Your task to perform on an android device: Open calendar and show me the third week of next month Image 0: 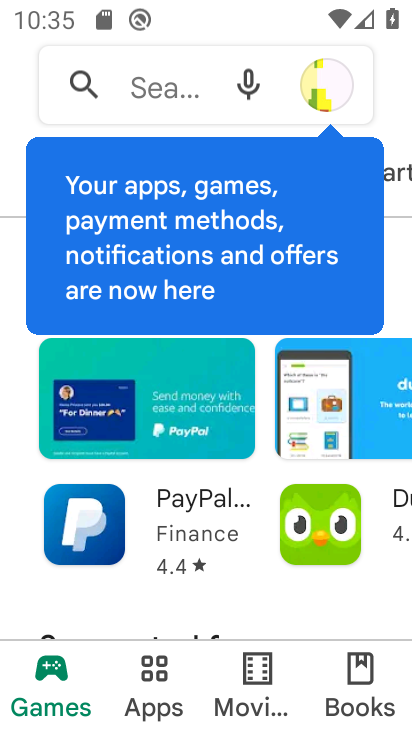
Step 0: press home button
Your task to perform on an android device: Open calendar and show me the third week of next month Image 1: 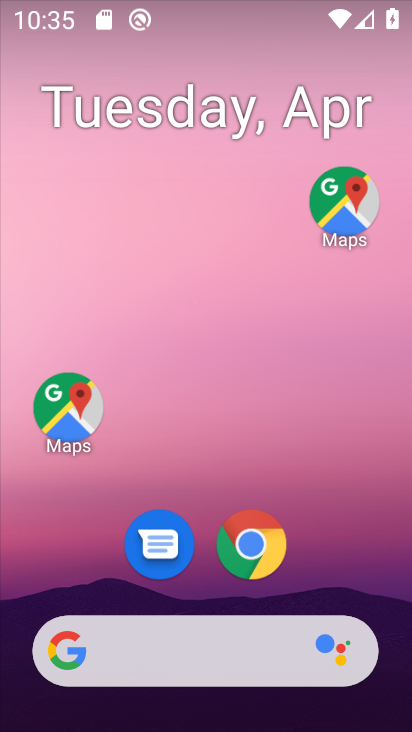
Step 1: drag from (304, 434) to (274, 104)
Your task to perform on an android device: Open calendar and show me the third week of next month Image 2: 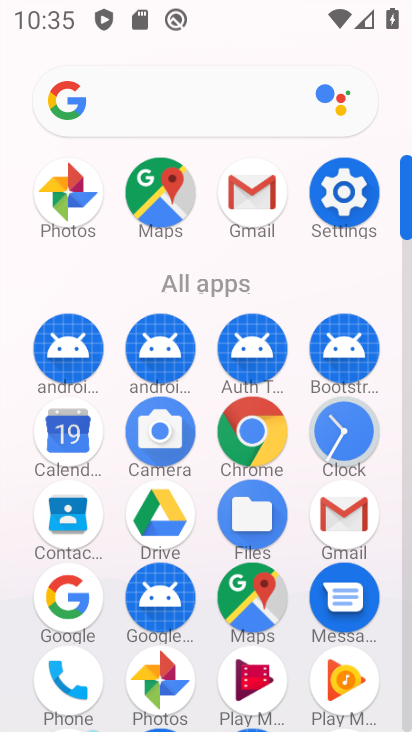
Step 2: drag from (307, 563) to (302, 280)
Your task to perform on an android device: Open calendar and show me the third week of next month Image 3: 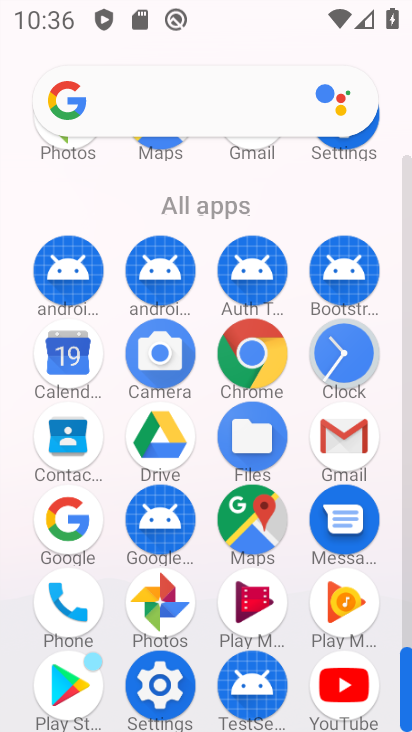
Step 3: click (84, 365)
Your task to perform on an android device: Open calendar and show me the third week of next month Image 4: 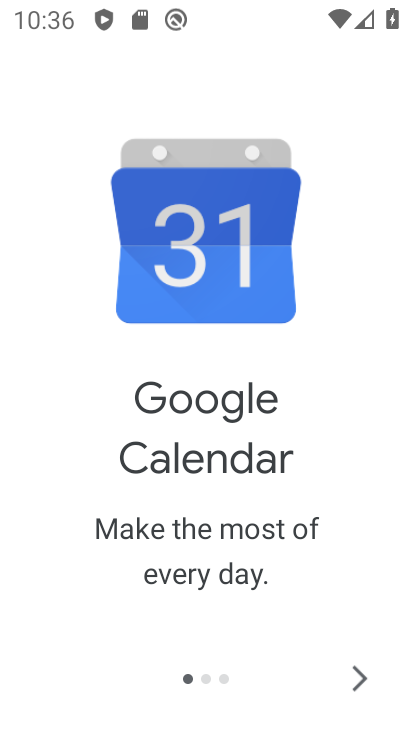
Step 4: click (358, 676)
Your task to perform on an android device: Open calendar and show me the third week of next month Image 5: 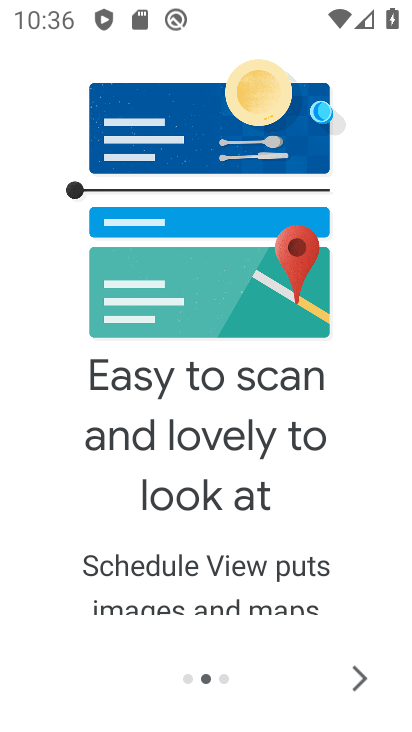
Step 5: click (352, 686)
Your task to perform on an android device: Open calendar and show me the third week of next month Image 6: 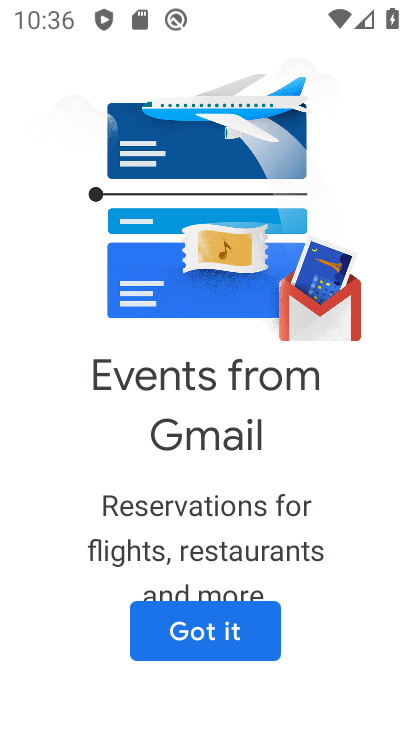
Step 6: click (260, 628)
Your task to perform on an android device: Open calendar and show me the third week of next month Image 7: 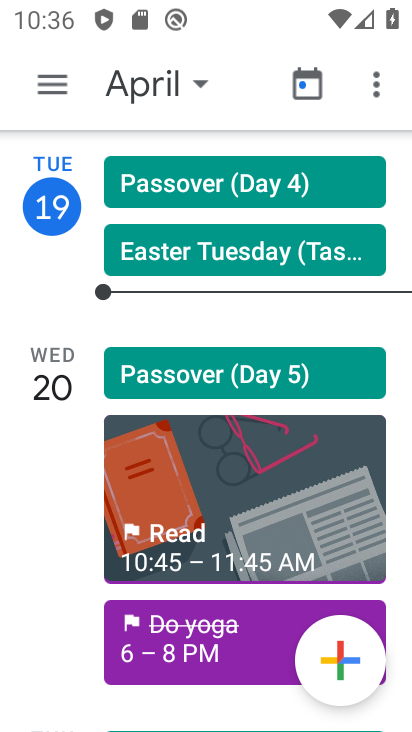
Step 7: click (176, 86)
Your task to perform on an android device: Open calendar and show me the third week of next month Image 8: 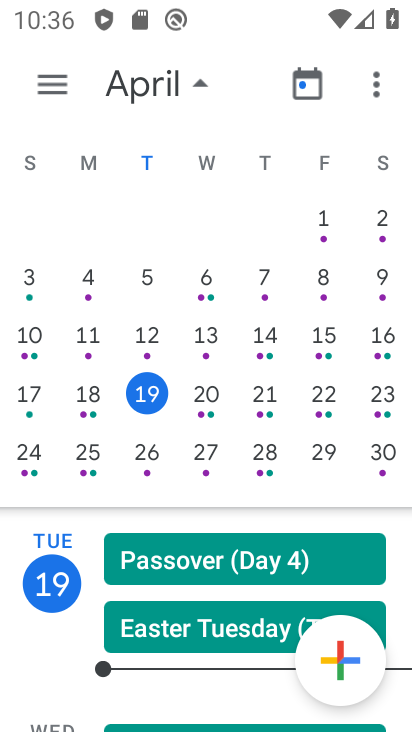
Step 8: drag from (357, 435) to (4, 401)
Your task to perform on an android device: Open calendar and show me the third week of next month Image 9: 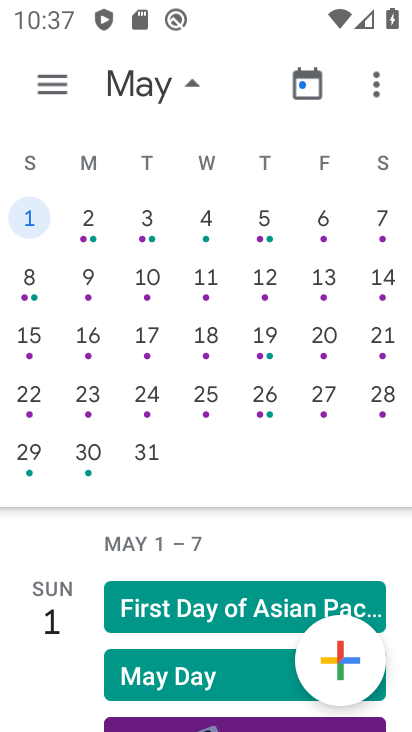
Step 9: click (31, 340)
Your task to perform on an android device: Open calendar and show me the third week of next month Image 10: 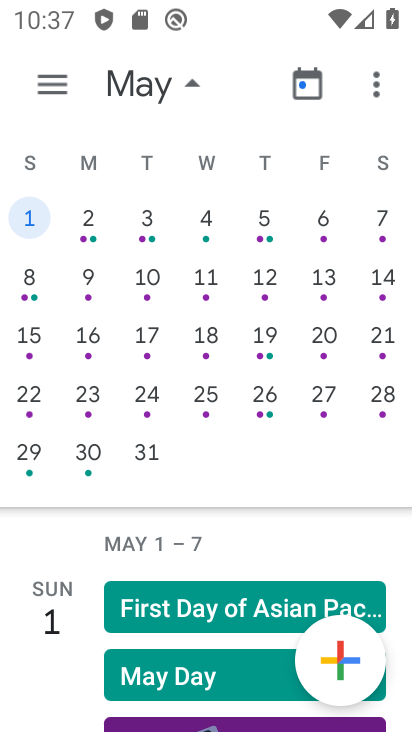
Step 10: click (38, 337)
Your task to perform on an android device: Open calendar and show me the third week of next month Image 11: 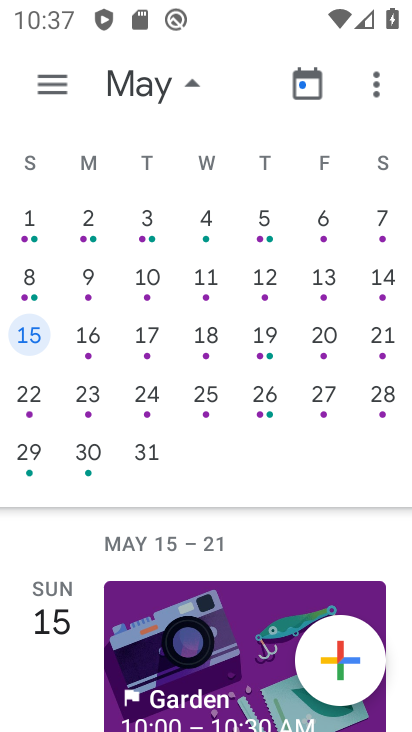
Step 11: click (99, 347)
Your task to perform on an android device: Open calendar and show me the third week of next month Image 12: 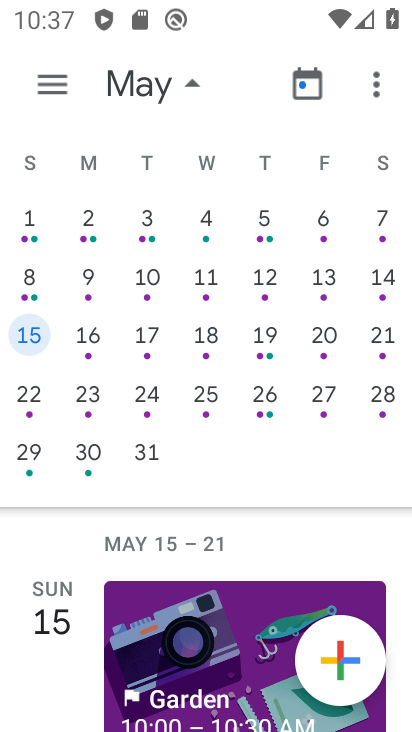
Step 12: click (162, 343)
Your task to perform on an android device: Open calendar and show me the third week of next month Image 13: 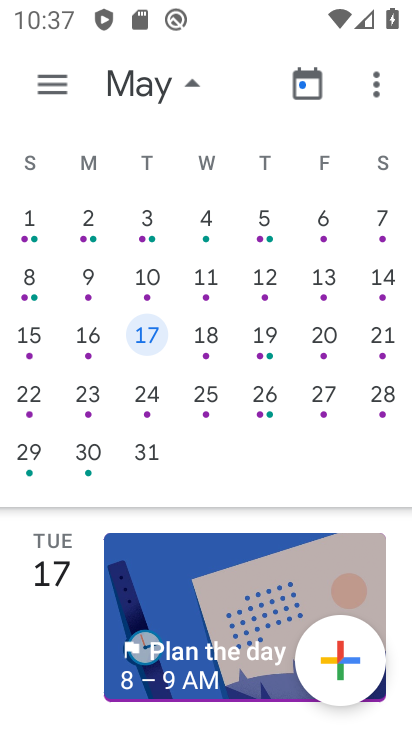
Step 13: click (214, 347)
Your task to perform on an android device: Open calendar and show me the third week of next month Image 14: 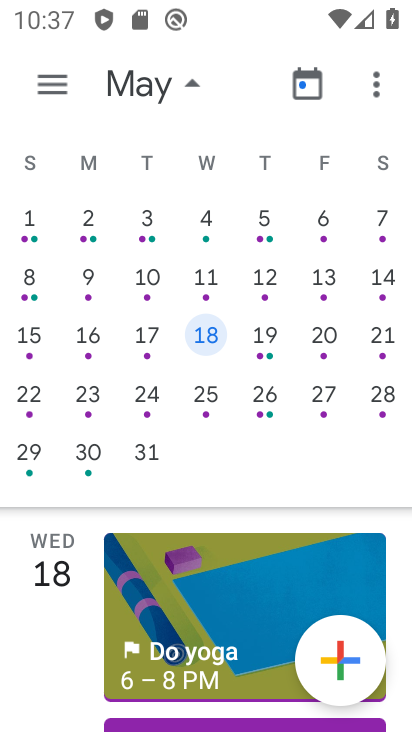
Step 14: click (272, 350)
Your task to perform on an android device: Open calendar and show me the third week of next month Image 15: 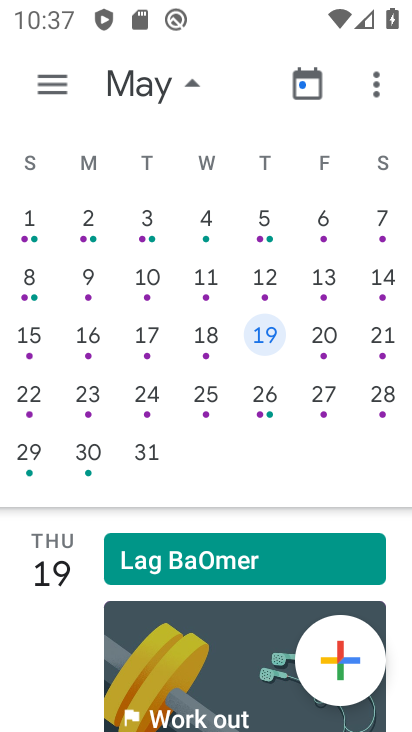
Step 15: click (323, 343)
Your task to perform on an android device: Open calendar and show me the third week of next month Image 16: 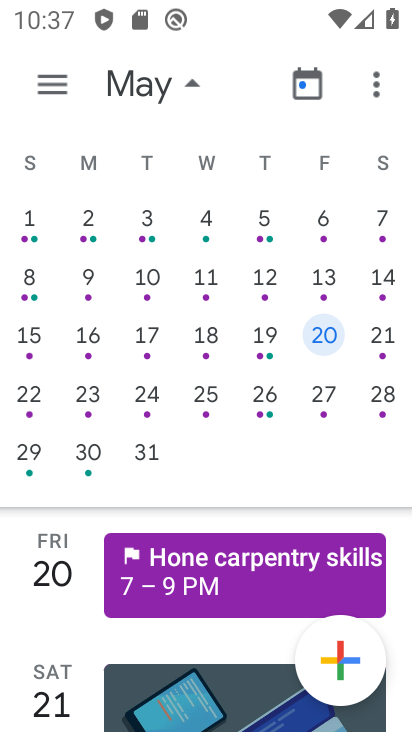
Step 16: click (386, 347)
Your task to perform on an android device: Open calendar and show me the third week of next month Image 17: 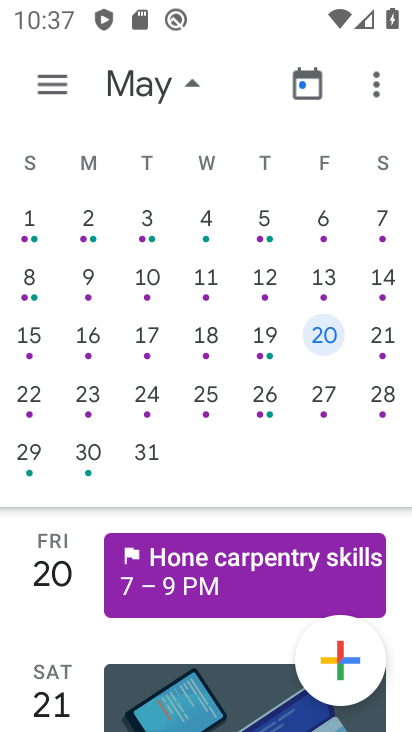
Step 17: click (381, 351)
Your task to perform on an android device: Open calendar and show me the third week of next month Image 18: 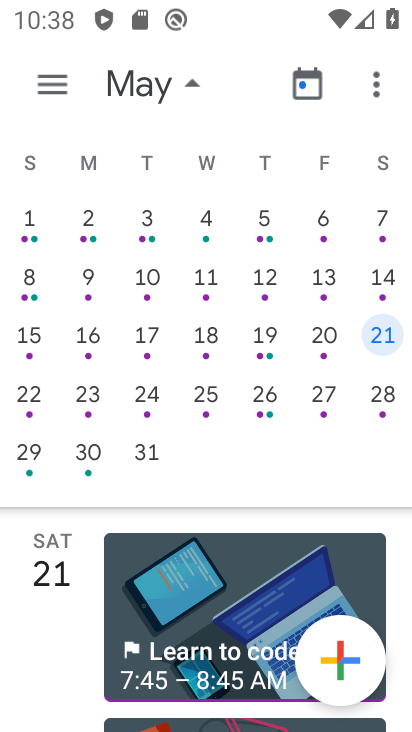
Step 18: task complete